Your task to perform on an android device: turn on improve location accuracy Image 0: 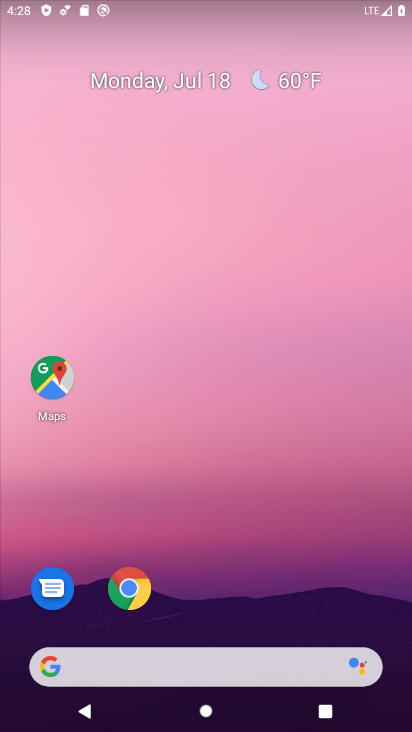
Step 0: drag from (225, 626) to (260, 14)
Your task to perform on an android device: turn on improve location accuracy Image 1: 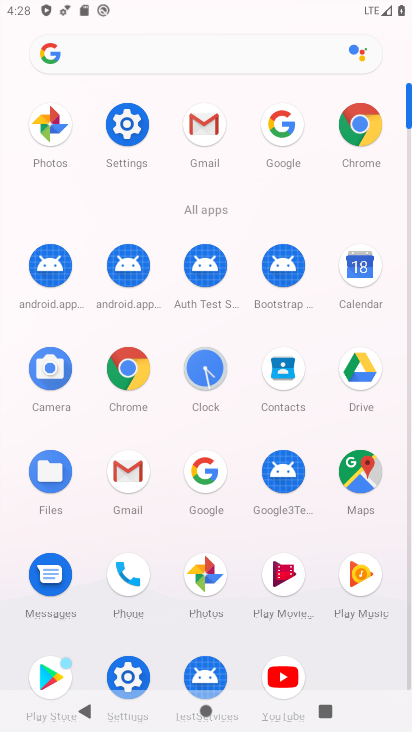
Step 1: click (120, 114)
Your task to perform on an android device: turn on improve location accuracy Image 2: 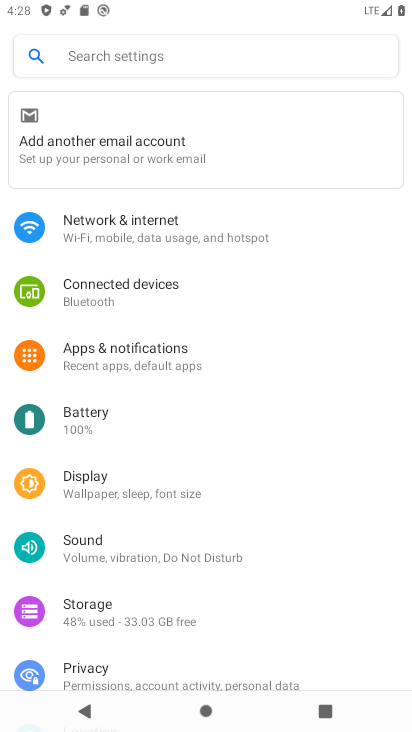
Step 2: drag from (166, 648) to (171, 256)
Your task to perform on an android device: turn on improve location accuracy Image 3: 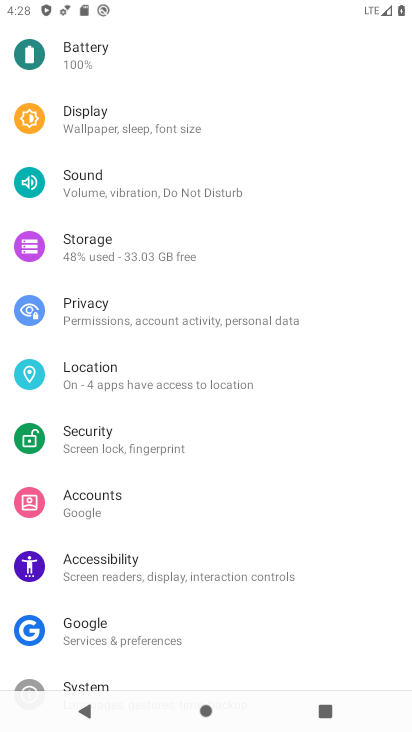
Step 3: click (125, 372)
Your task to perform on an android device: turn on improve location accuracy Image 4: 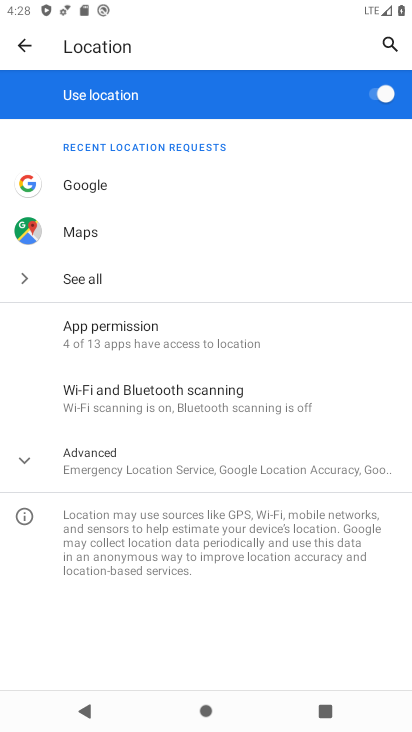
Step 4: click (35, 448)
Your task to perform on an android device: turn on improve location accuracy Image 5: 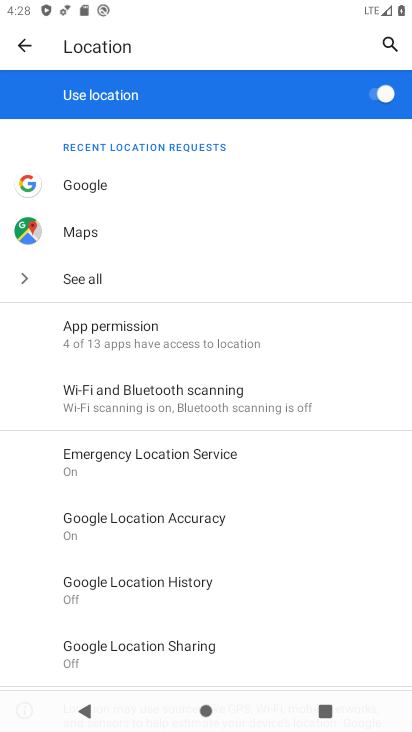
Step 5: click (179, 527)
Your task to perform on an android device: turn on improve location accuracy Image 6: 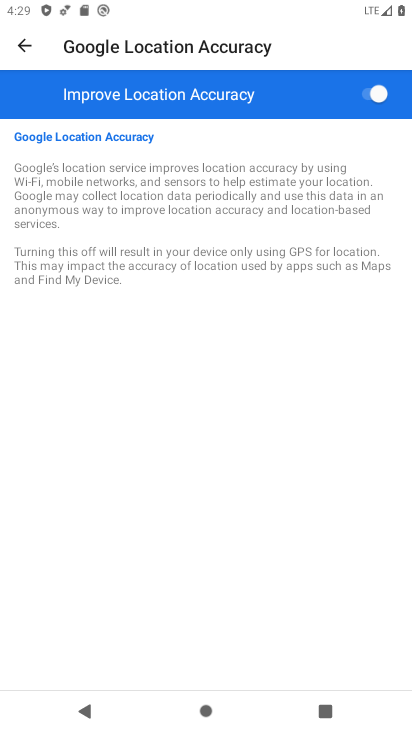
Step 6: task complete